Your task to perform on an android device: add a label to a message in the gmail app Image 0: 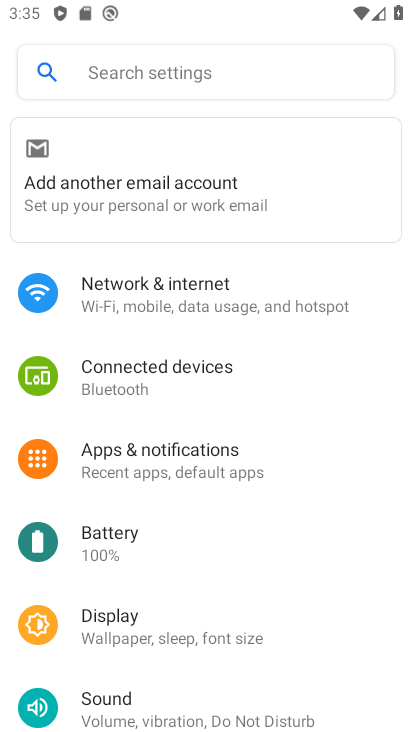
Step 0: press home button
Your task to perform on an android device: add a label to a message in the gmail app Image 1: 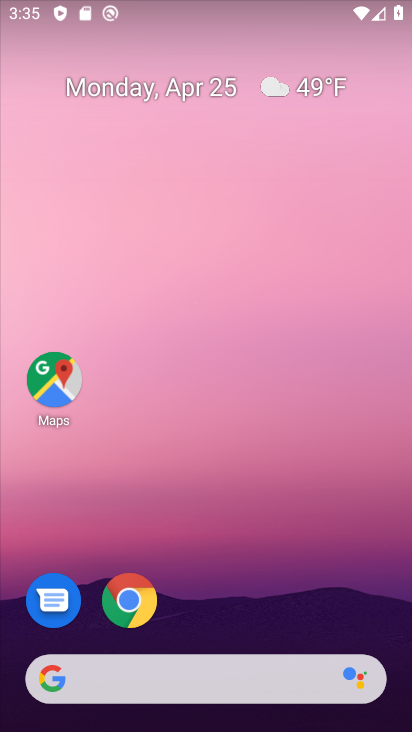
Step 1: drag from (231, 570) to (252, 8)
Your task to perform on an android device: add a label to a message in the gmail app Image 2: 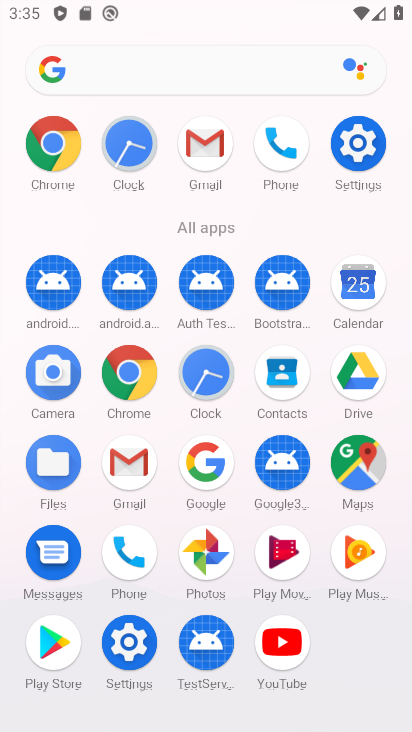
Step 2: click (205, 144)
Your task to perform on an android device: add a label to a message in the gmail app Image 3: 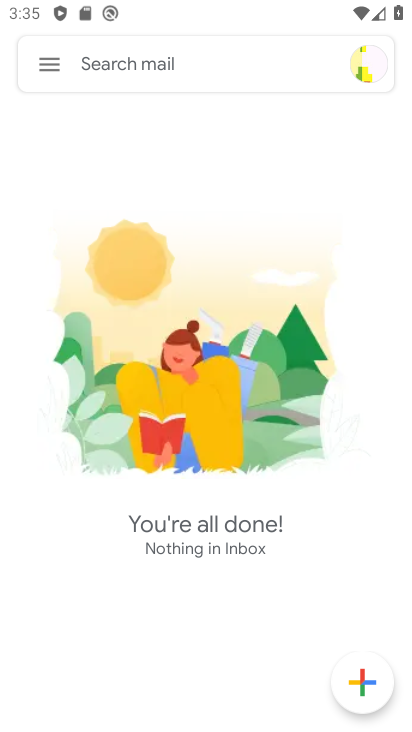
Step 3: click (41, 61)
Your task to perform on an android device: add a label to a message in the gmail app Image 4: 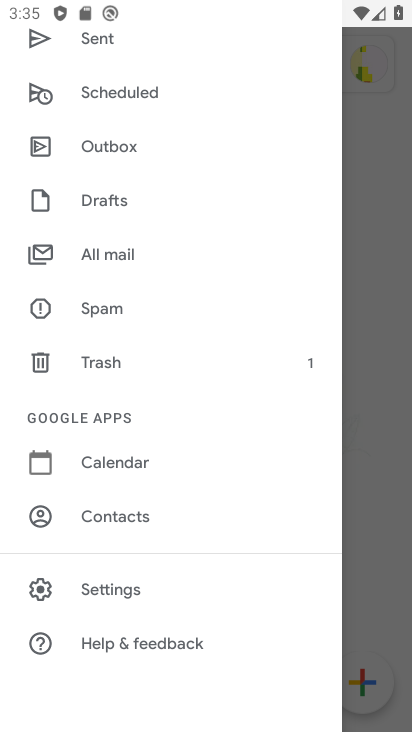
Step 4: click (138, 247)
Your task to perform on an android device: add a label to a message in the gmail app Image 5: 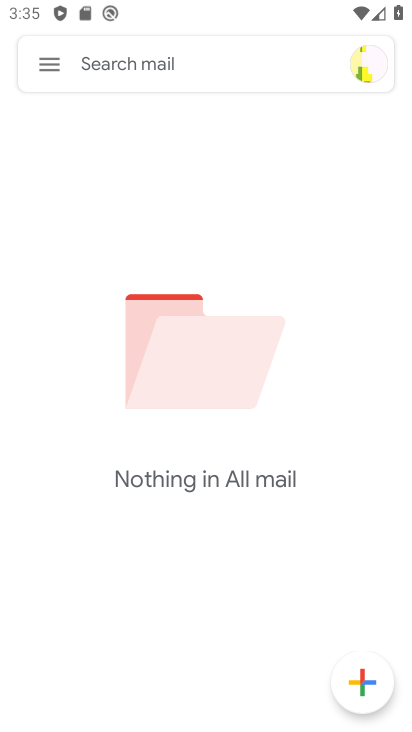
Step 5: task complete